Your task to perform on an android device: Open the calendar app, open the side menu, and click the "Day" option Image 0: 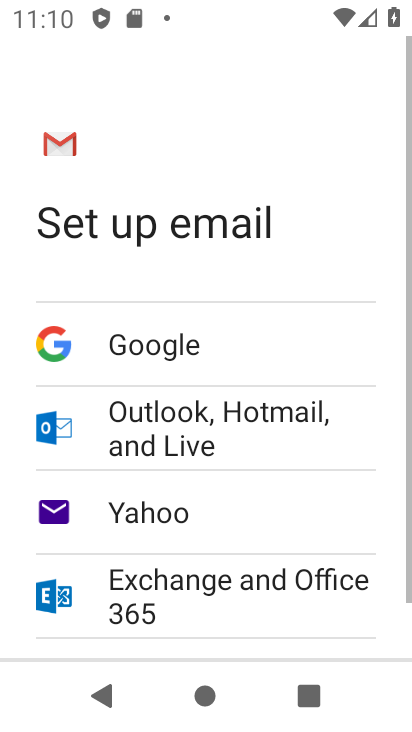
Step 0: press home button
Your task to perform on an android device: Open the calendar app, open the side menu, and click the "Day" option Image 1: 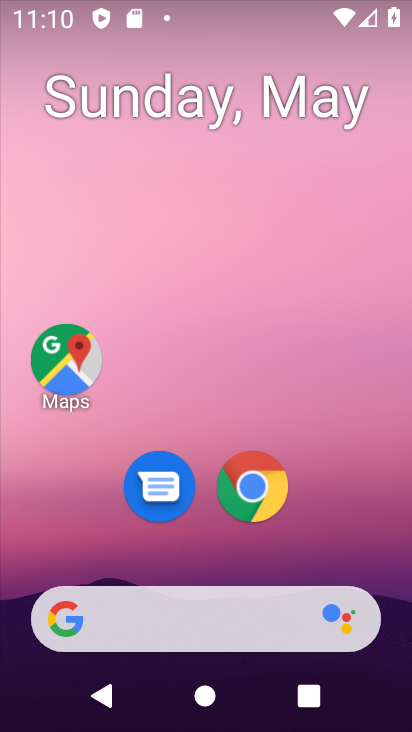
Step 1: drag from (339, 555) to (336, 87)
Your task to perform on an android device: Open the calendar app, open the side menu, and click the "Day" option Image 2: 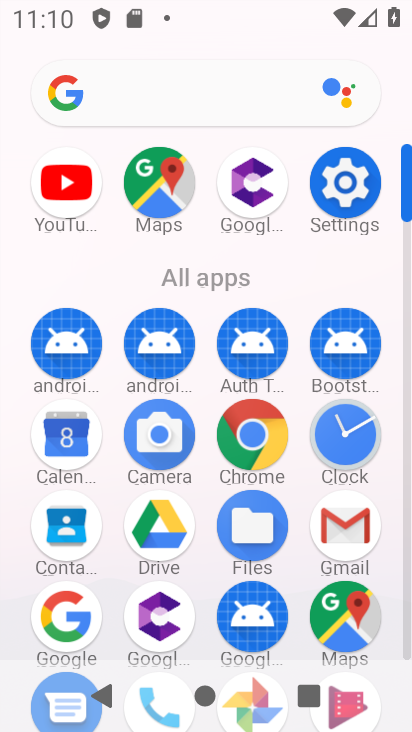
Step 2: click (69, 437)
Your task to perform on an android device: Open the calendar app, open the side menu, and click the "Day" option Image 3: 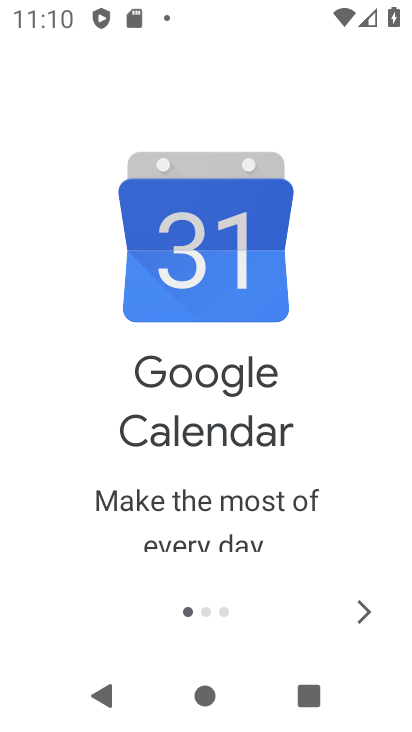
Step 3: click (369, 605)
Your task to perform on an android device: Open the calendar app, open the side menu, and click the "Day" option Image 4: 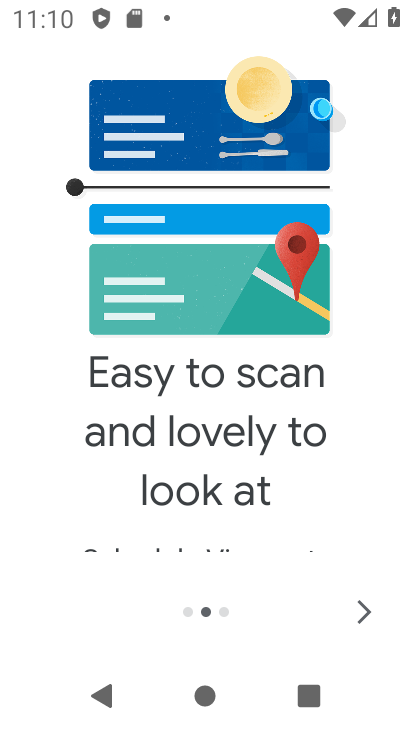
Step 4: click (369, 605)
Your task to perform on an android device: Open the calendar app, open the side menu, and click the "Day" option Image 5: 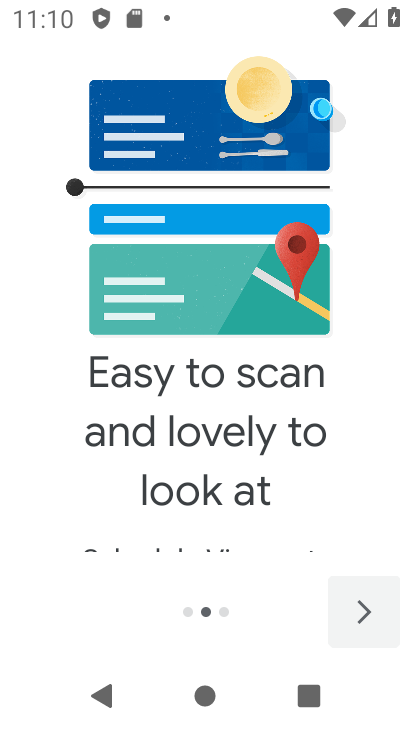
Step 5: click (369, 605)
Your task to perform on an android device: Open the calendar app, open the side menu, and click the "Day" option Image 6: 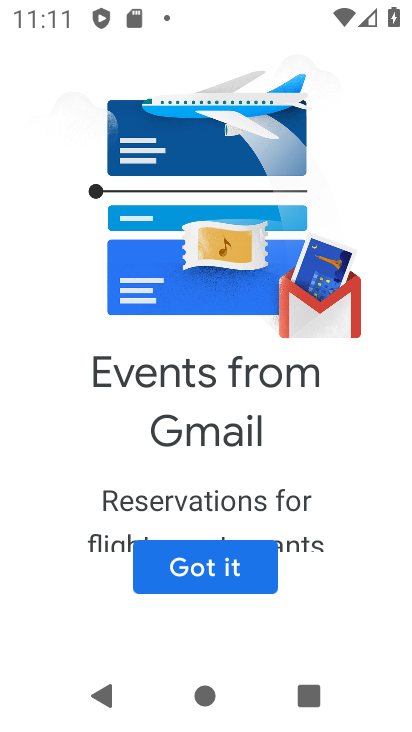
Step 6: click (263, 565)
Your task to perform on an android device: Open the calendar app, open the side menu, and click the "Day" option Image 7: 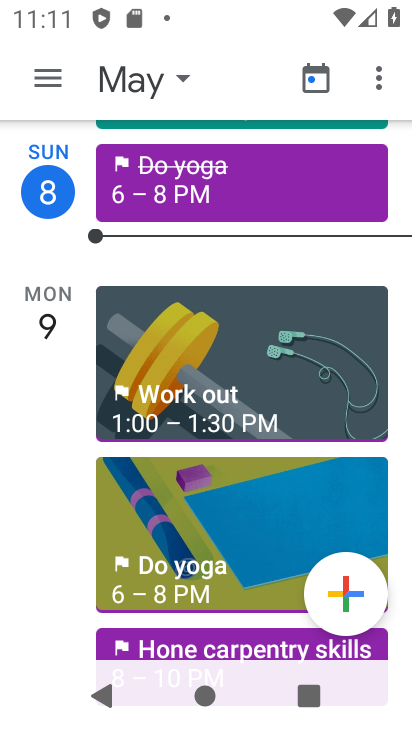
Step 7: click (62, 81)
Your task to perform on an android device: Open the calendar app, open the side menu, and click the "Day" option Image 8: 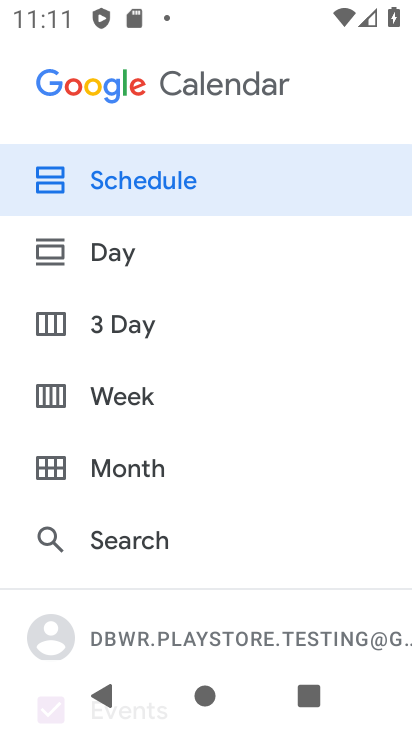
Step 8: click (139, 246)
Your task to perform on an android device: Open the calendar app, open the side menu, and click the "Day" option Image 9: 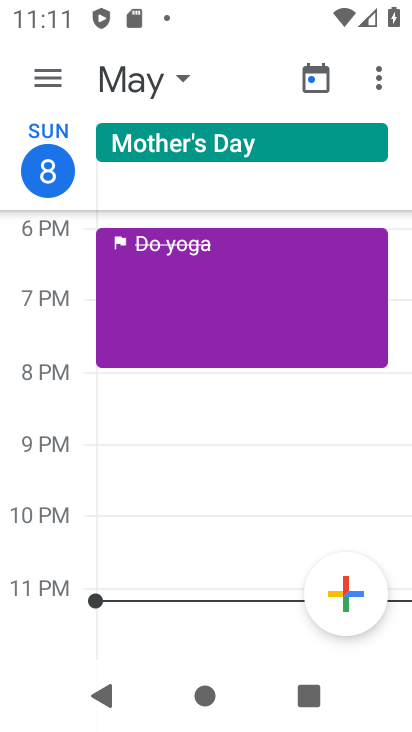
Step 9: click (57, 82)
Your task to perform on an android device: Open the calendar app, open the side menu, and click the "Day" option Image 10: 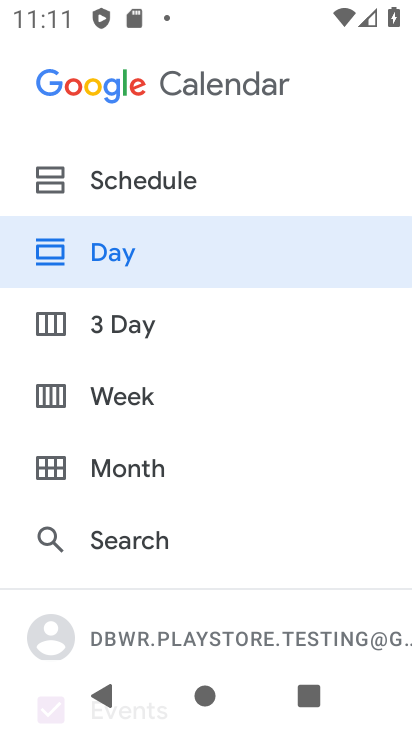
Step 10: click (124, 260)
Your task to perform on an android device: Open the calendar app, open the side menu, and click the "Day" option Image 11: 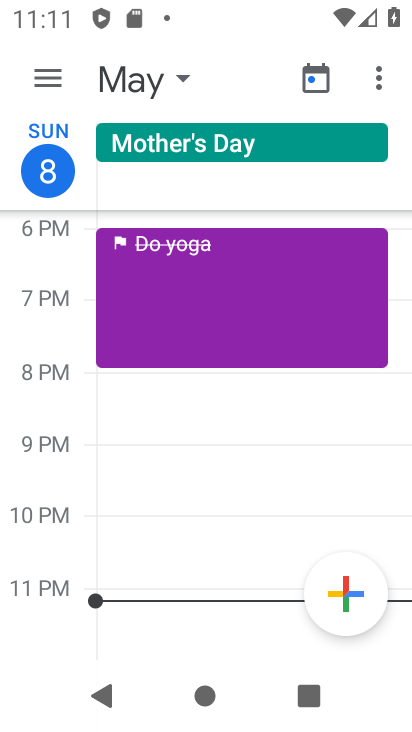
Step 11: task complete